Your task to perform on an android device: Search for pizza restaurants on Maps Image 0: 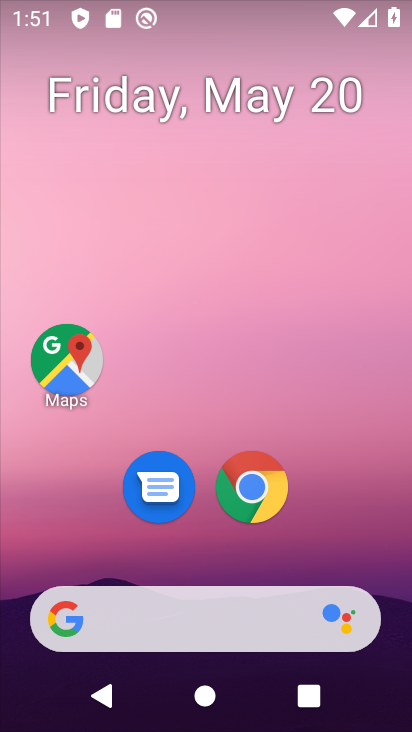
Step 0: drag from (321, 539) to (408, 11)
Your task to perform on an android device: Search for pizza restaurants on Maps Image 1: 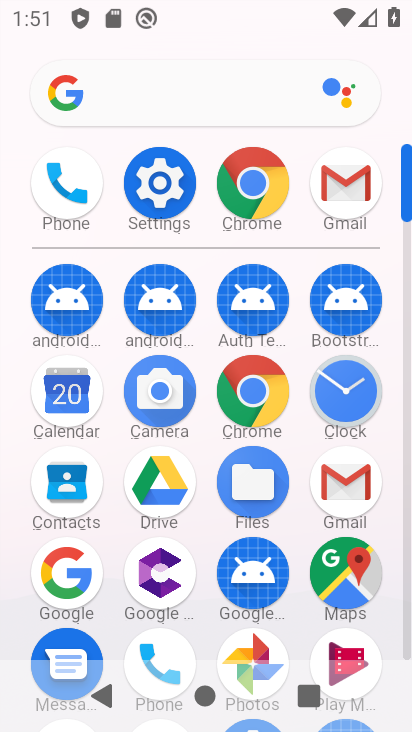
Step 1: click (359, 559)
Your task to perform on an android device: Search for pizza restaurants on Maps Image 2: 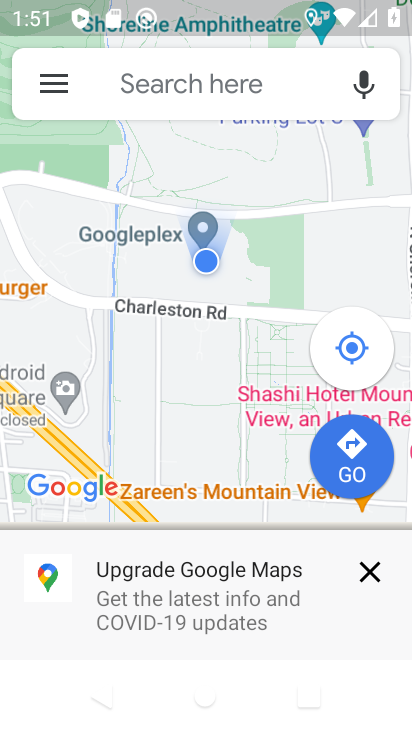
Step 2: click (196, 90)
Your task to perform on an android device: Search for pizza restaurants on Maps Image 3: 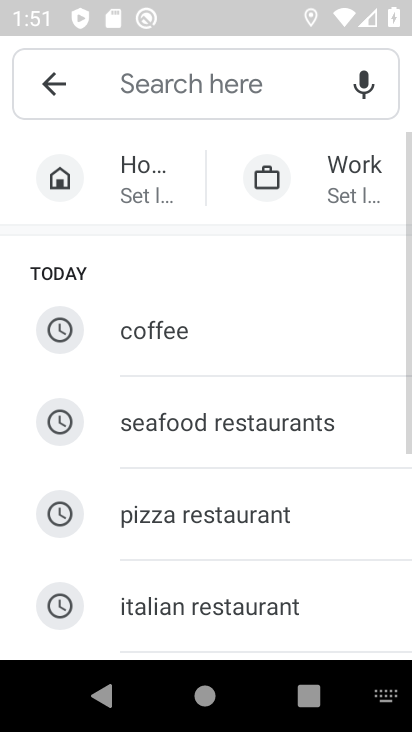
Step 3: click (205, 508)
Your task to perform on an android device: Search for pizza restaurants on Maps Image 4: 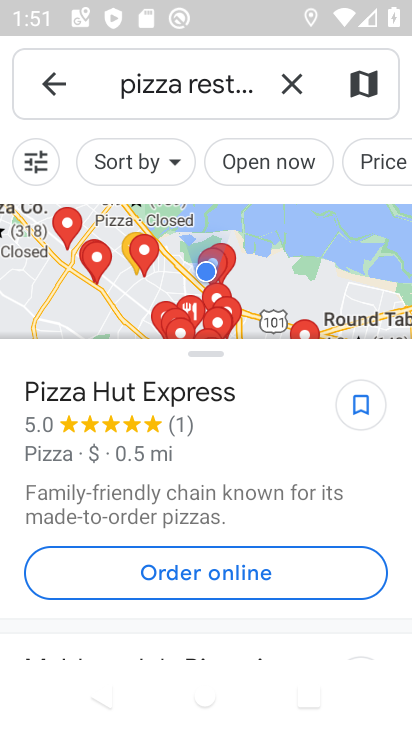
Step 4: task complete